Your task to perform on an android device: remove spam from my inbox in the gmail app Image 0: 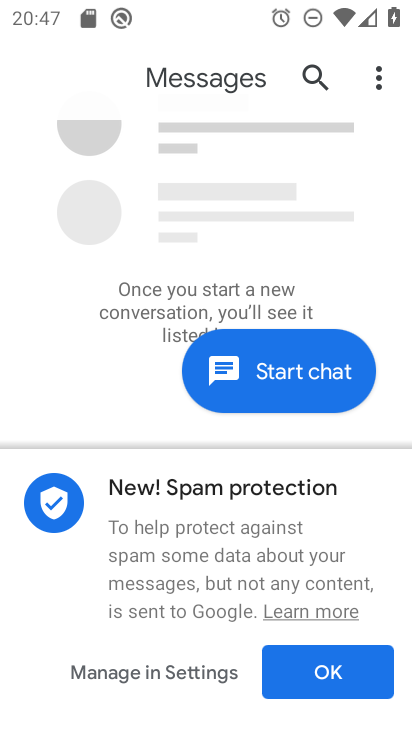
Step 0: press home button
Your task to perform on an android device: remove spam from my inbox in the gmail app Image 1: 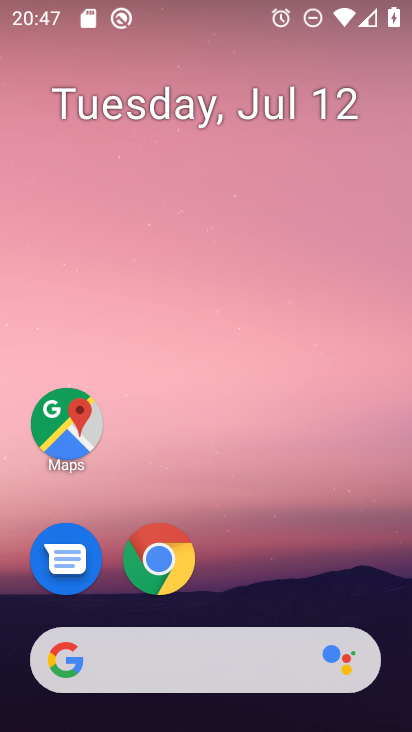
Step 1: drag from (381, 596) to (364, 103)
Your task to perform on an android device: remove spam from my inbox in the gmail app Image 2: 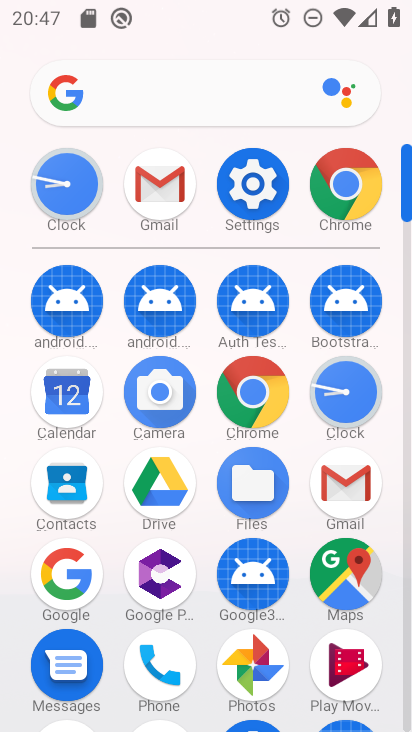
Step 2: click (359, 474)
Your task to perform on an android device: remove spam from my inbox in the gmail app Image 3: 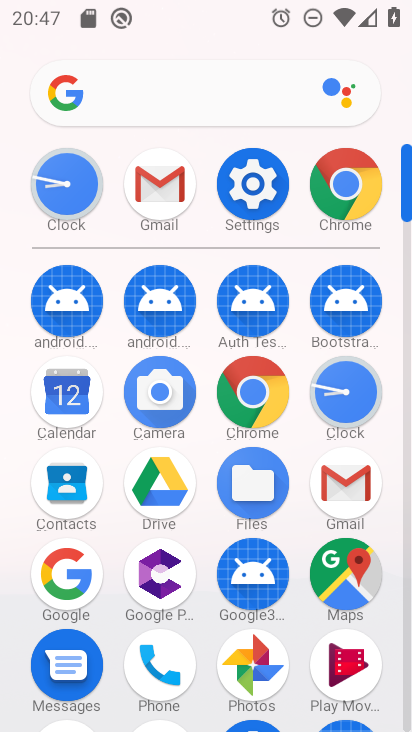
Step 3: click (359, 474)
Your task to perform on an android device: remove spam from my inbox in the gmail app Image 4: 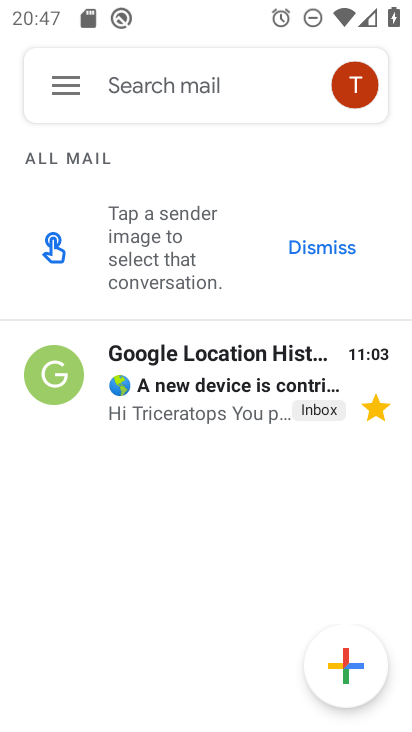
Step 4: click (61, 73)
Your task to perform on an android device: remove spam from my inbox in the gmail app Image 5: 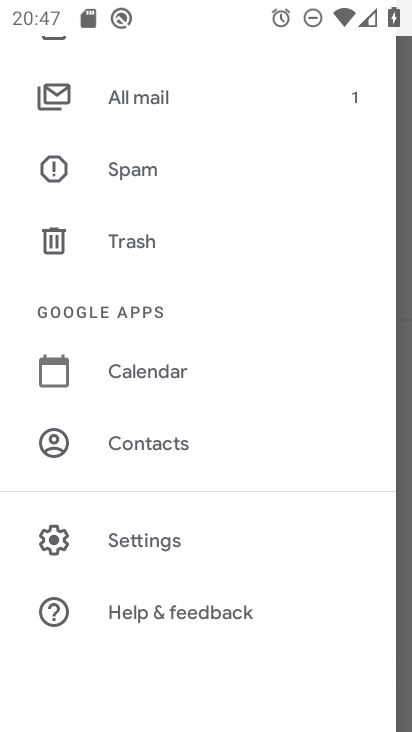
Step 5: drag from (286, 227) to (299, 358)
Your task to perform on an android device: remove spam from my inbox in the gmail app Image 6: 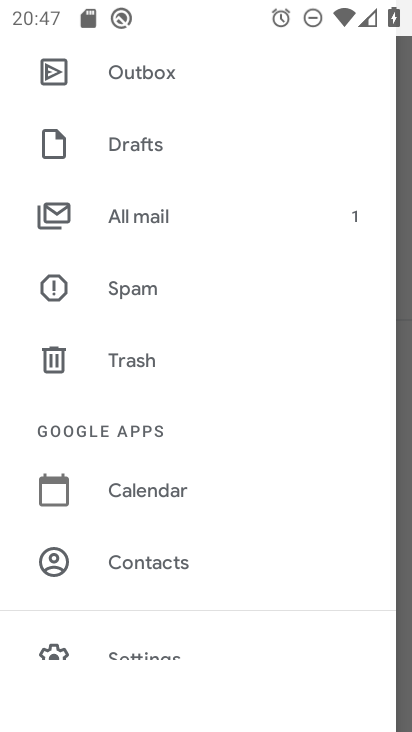
Step 6: drag from (283, 245) to (283, 422)
Your task to perform on an android device: remove spam from my inbox in the gmail app Image 7: 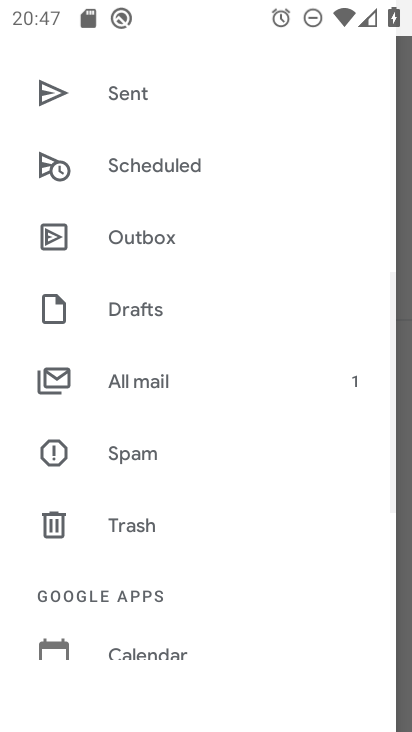
Step 7: drag from (241, 144) to (258, 397)
Your task to perform on an android device: remove spam from my inbox in the gmail app Image 8: 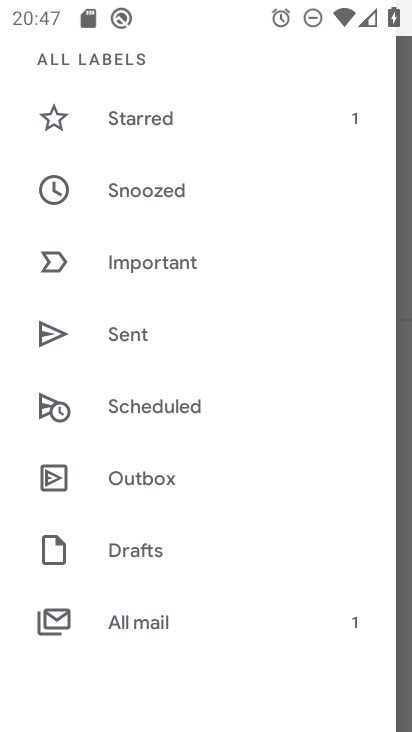
Step 8: drag from (246, 134) to (264, 360)
Your task to perform on an android device: remove spam from my inbox in the gmail app Image 9: 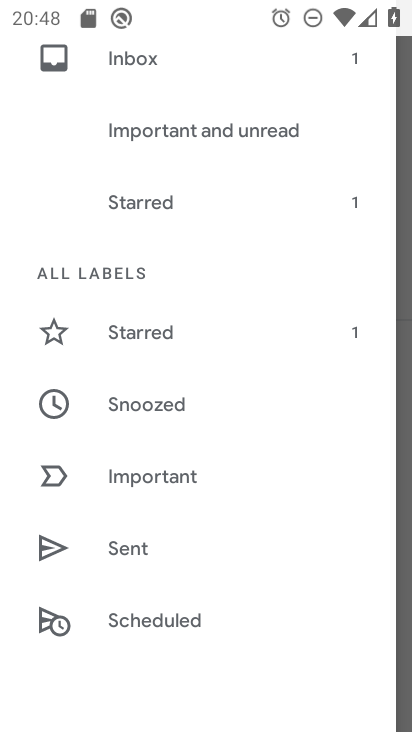
Step 9: drag from (273, 103) to (263, 310)
Your task to perform on an android device: remove spam from my inbox in the gmail app Image 10: 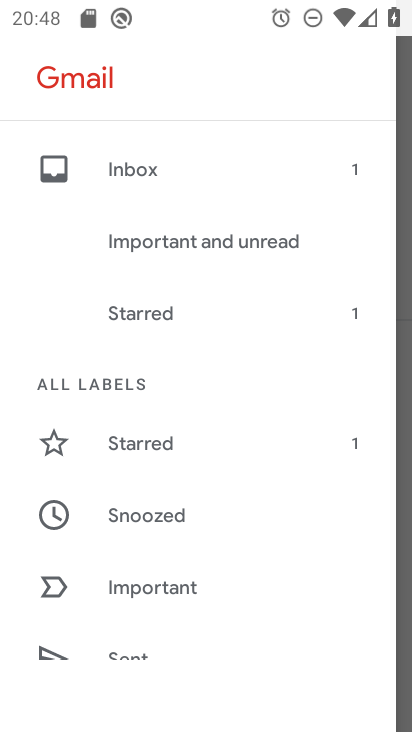
Step 10: click (187, 184)
Your task to perform on an android device: remove spam from my inbox in the gmail app Image 11: 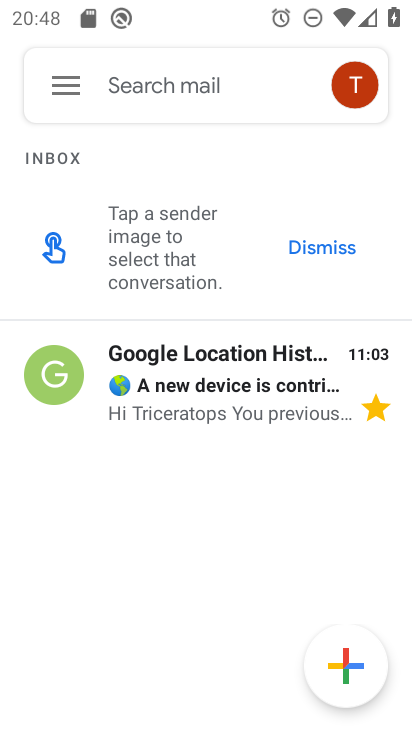
Step 11: task complete